Your task to perform on an android device: Is it going to rain this weekend? Image 0: 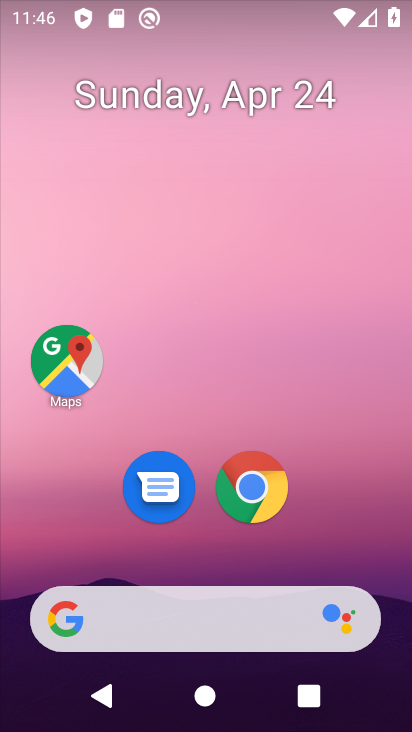
Step 0: click (195, 617)
Your task to perform on an android device: Is it going to rain this weekend? Image 1: 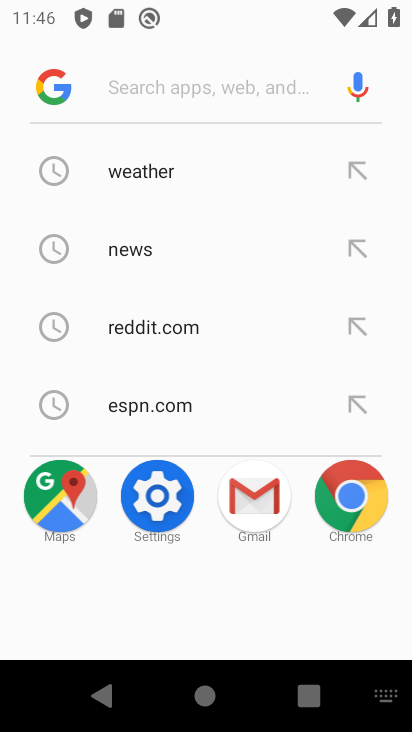
Step 1: type "Is it going to rain this weekend?"
Your task to perform on an android device: Is it going to rain this weekend? Image 2: 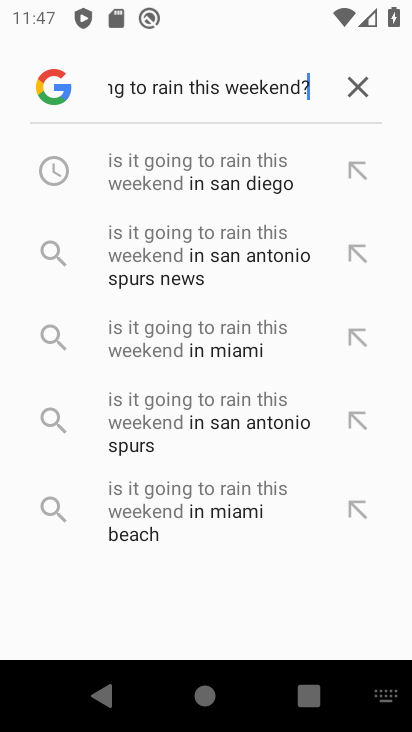
Step 2: click (241, 170)
Your task to perform on an android device: Is it going to rain this weekend? Image 3: 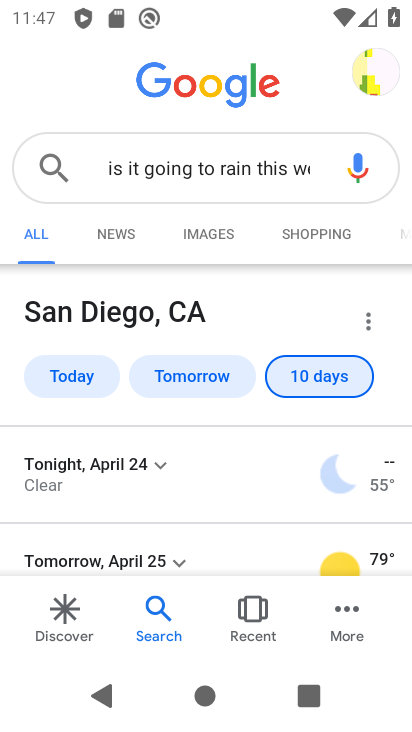
Step 3: task complete